Your task to perform on an android device: turn on improve location accuracy Image 0: 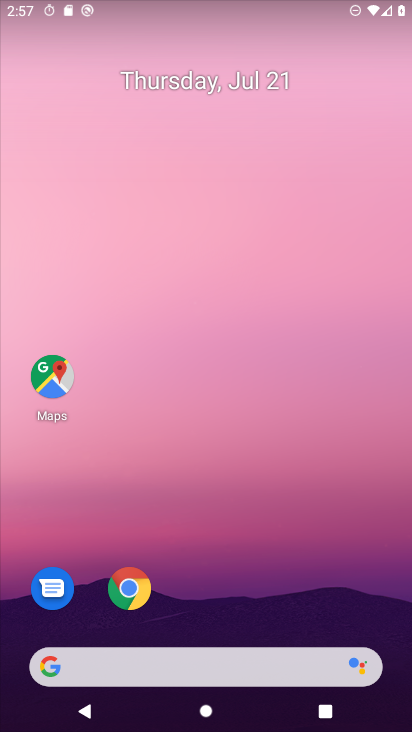
Step 0: press home button
Your task to perform on an android device: turn on improve location accuracy Image 1: 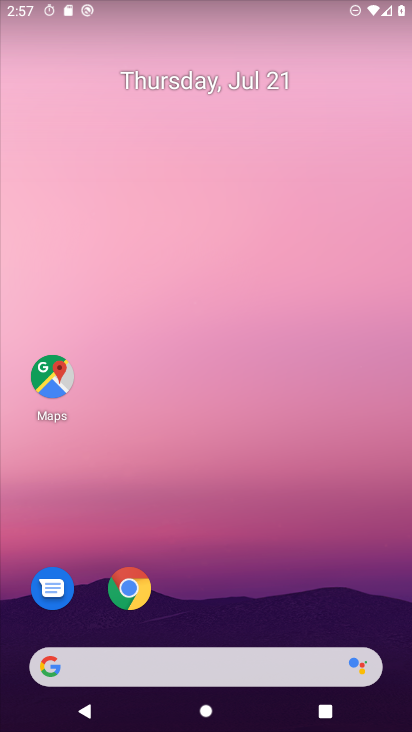
Step 1: drag from (157, 690) to (224, 39)
Your task to perform on an android device: turn on improve location accuracy Image 2: 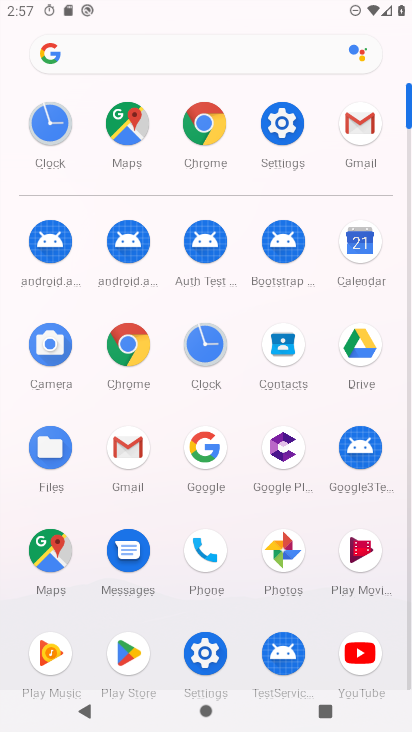
Step 2: click (293, 124)
Your task to perform on an android device: turn on improve location accuracy Image 3: 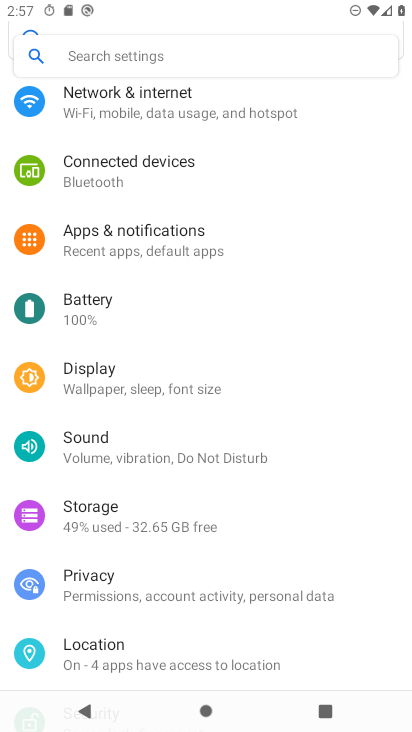
Step 3: click (123, 652)
Your task to perform on an android device: turn on improve location accuracy Image 4: 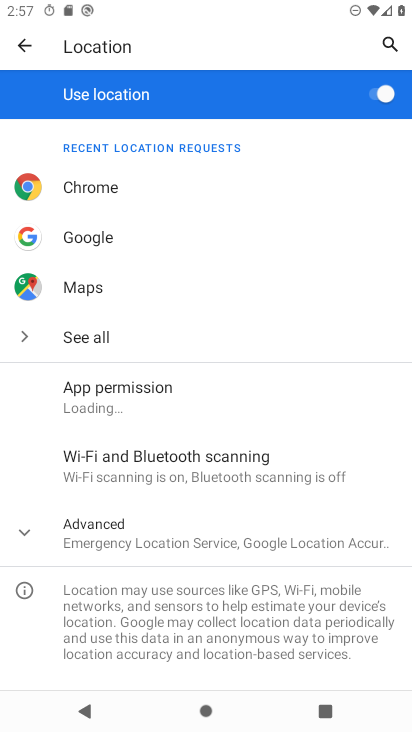
Step 4: click (160, 539)
Your task to perform on an android device: turn on improve location accuracy Image 5: 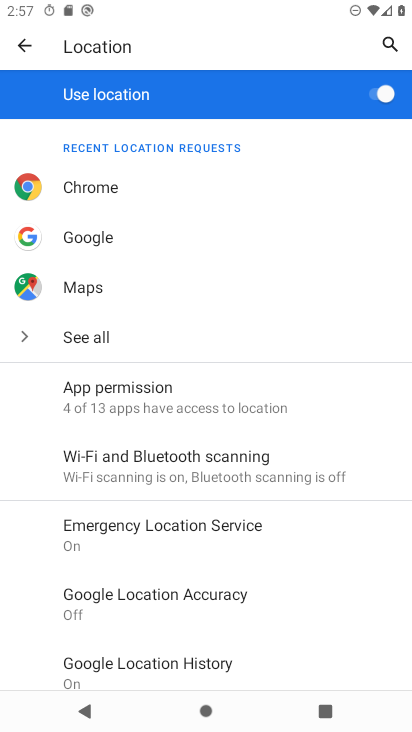
Step 5: click (215, 611)
Your task to perform on an android device: turn on improve location accuracy Image 6: 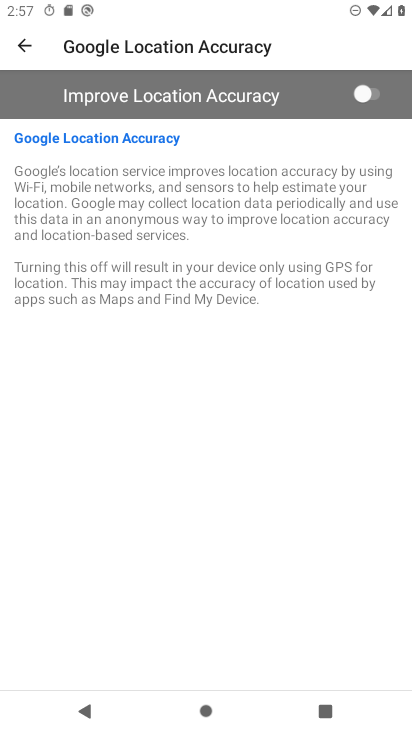
Step 6: click (375, 98)
Your task to perform on an android device: turn on improve location accuracy Image 7: 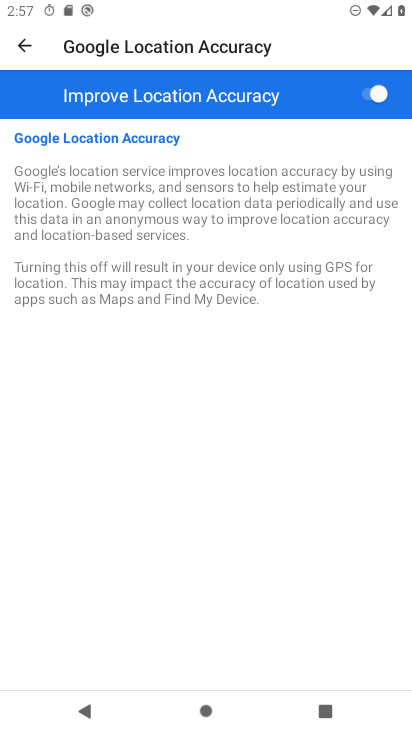
Step 7: task complete